Your task to perform on an android device: Show me productivity apps on the Play Store Image 0: 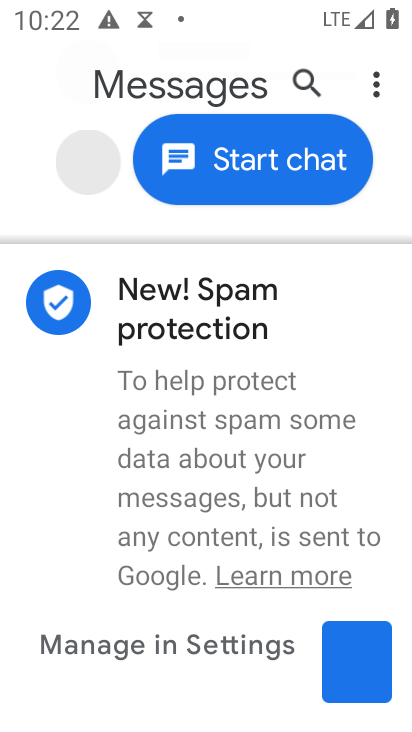
Step 0: press home button
Your task to perform on an android device: Show me productivity apps on the Play Store Image 1: 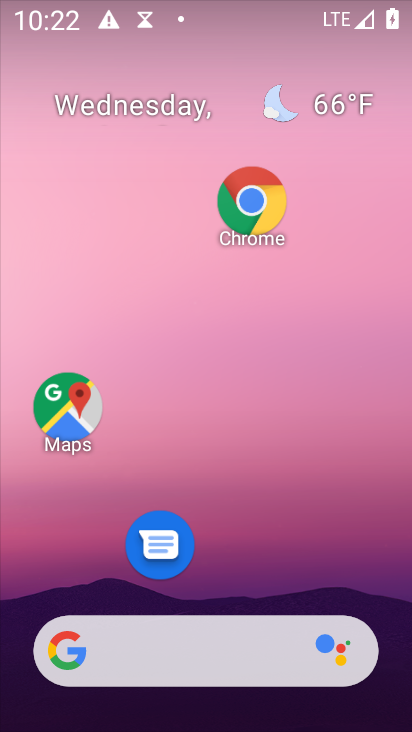
Step 1: drag from (301, 462) to (226, 0)
Your task to perform on an android device: Show me productivity apps on the Play Store Image 2: 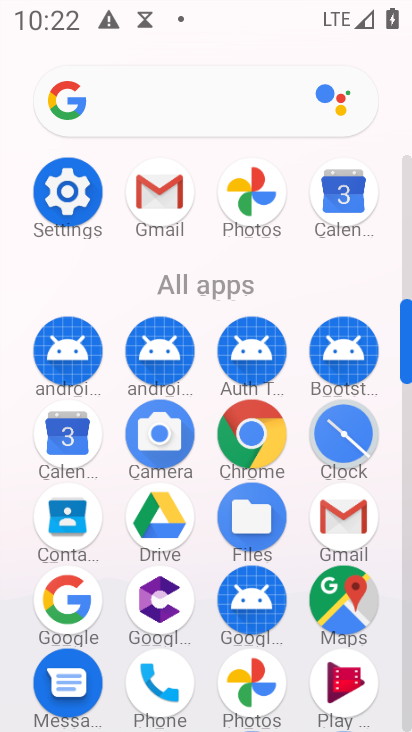
Step 2: drag from (201, 663) to (135, 257)
Your task to perform on an android device: Show me productivity apps on the Play Store Image 3: 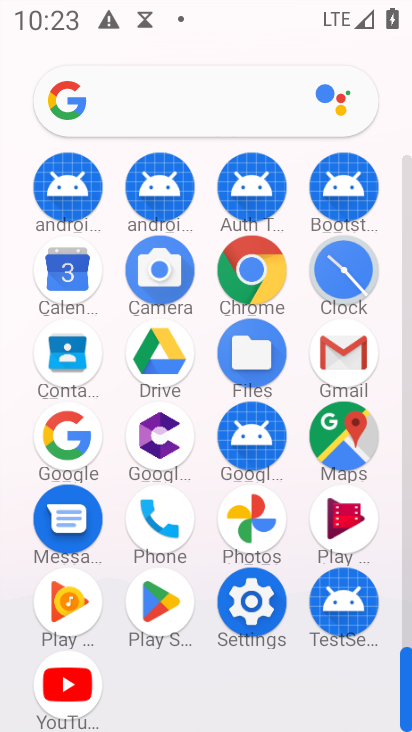
Step 3: click (149, 591)
Your task to perform on an android device: Show me productivity apps on the Play Store Image 4: 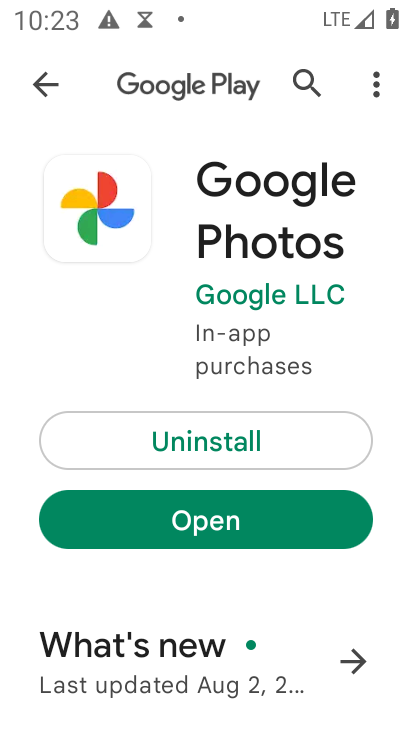
Step 4: click (38, 69)
Your task to perform on an android device: Show me productivity apps on the Play Store Image 5: 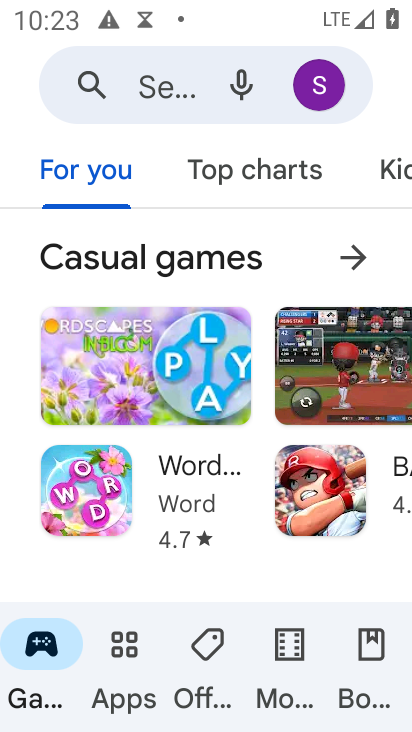
Step 5: click (124, 643)
Your task to perform on an android device: Show me productivity apps on the Play Store Image 6: 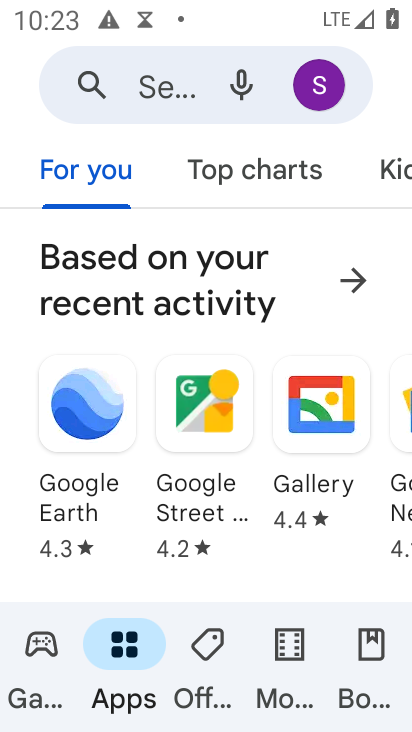
Step 6: drag from (381, 168) to (229, 175)
Your task to perform on an android device: Show me productivity apps on the Play Store Image 7: 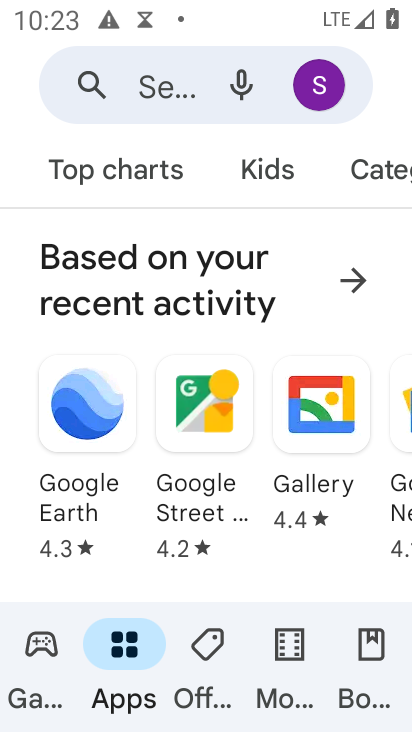
Step 7: click (379, 159)
Your task to perform on an android device: Show me productivity apps on the Play Store Image 8: 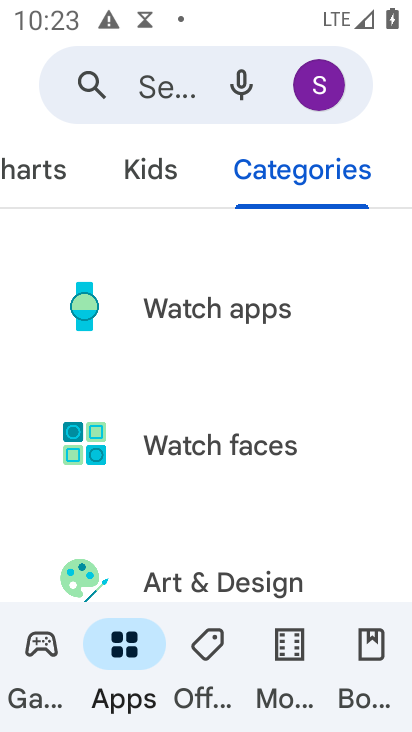
Step 8: drag from (219, 544) to (208, 108)
Your task to perform on an android device: Show me productivity apps on the Play Store Image 9: 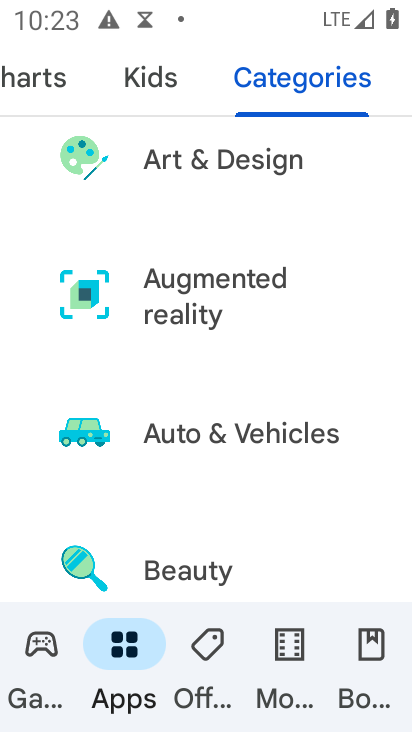
Step 9: drag from (219, 503) to (219, 123)
Your task to perform on an android device: Show me productivity apps on the Play Store Image 10: 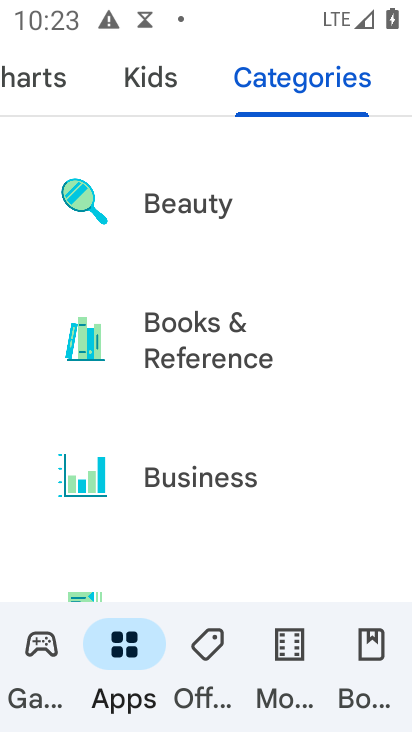
Step 10: drag from (239, 521) to (164, 55)
Your task to perform on an android device: Show me productivity apps on the Play Store Image 11: 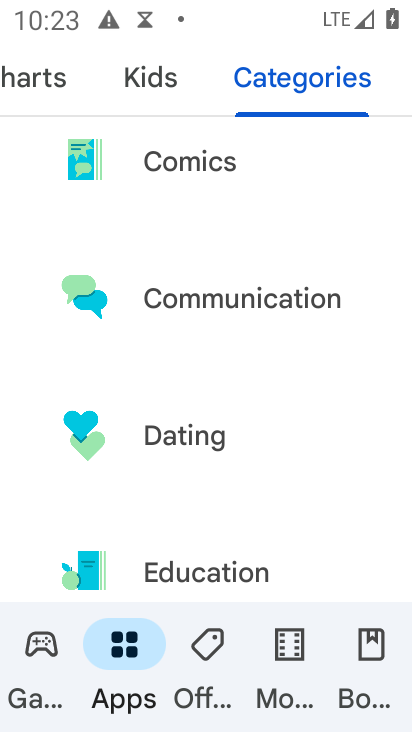
Step 11: drag from (226, 439) to (214, 80)
Your task to perform on an android device: Show me productivity apps on the Play Store Image 12: 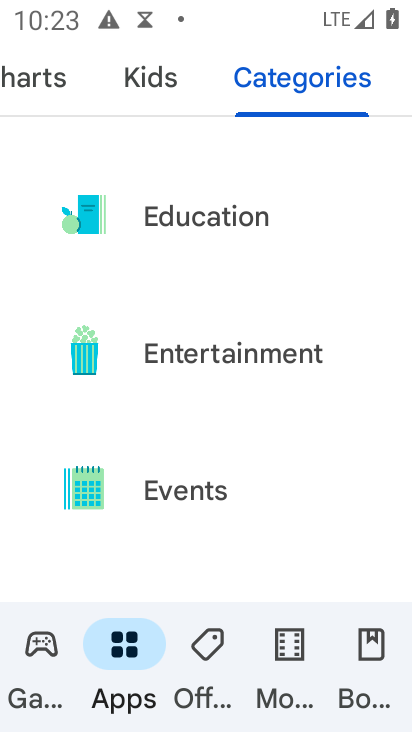
Step 12: drag from (242, 513) to (212, 134)
Your task to perform on an android device: Show me productivity apps on the Play Store Image 13: 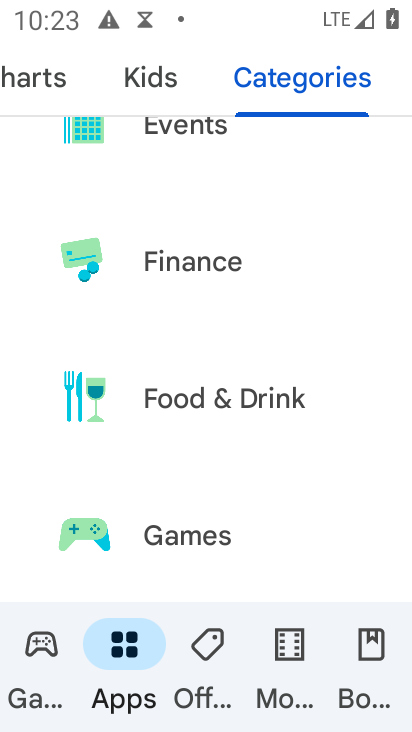
Step 13: drag from (242, 484) to (175, 110)
Your task to perform on an android device: Show me productivity apps on the Play Store Image 14: 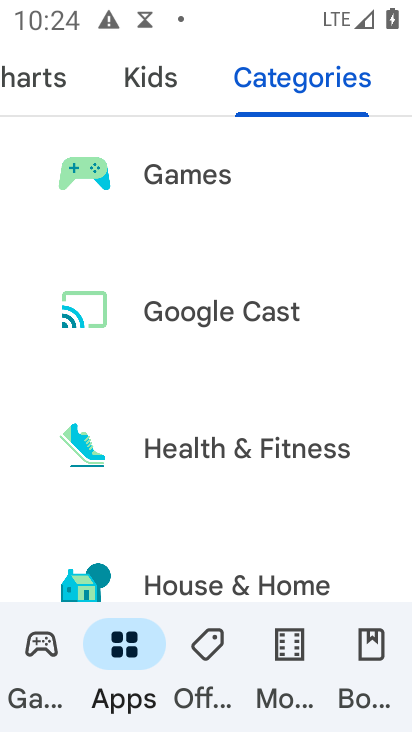
Step 14: drag from (254, 568) to (229, 243)
Your task to perform on an android device: Show me productivity apps on the Play Store Image 15: 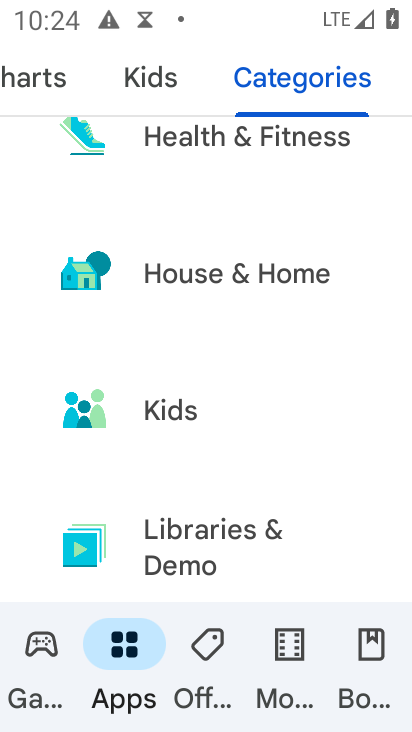
Step 15: drag from (256, 535) to (248, 74)
Your task to perform on an android device: Show me productivity apps on the Play Store Image 16: 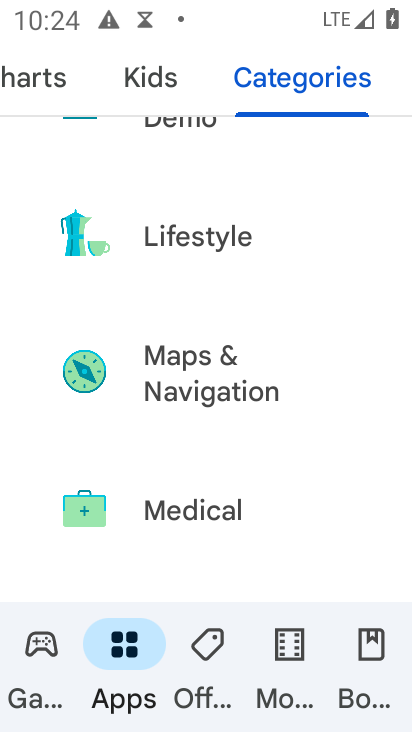
Step 16: drag from (239, 459) to (239, 137)
Your task to perform on an android device: Show me productivity apps on the Play Store Image 17: 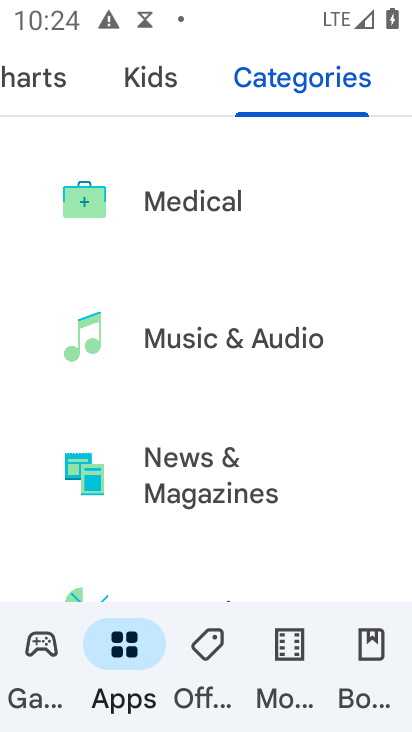
Step 17: drag from (263, 502) to (281, 76)
Your task to perform on an android device: Show me productivity apps on the Play Store Image 18: 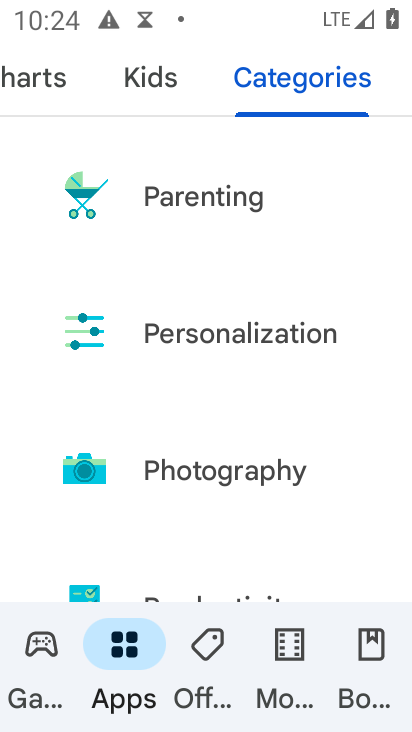
Step 18: drag from (281, 495) to (318, 113)
Your task to perform on an android device: Show me productivity apps on the Play Store Image 19: 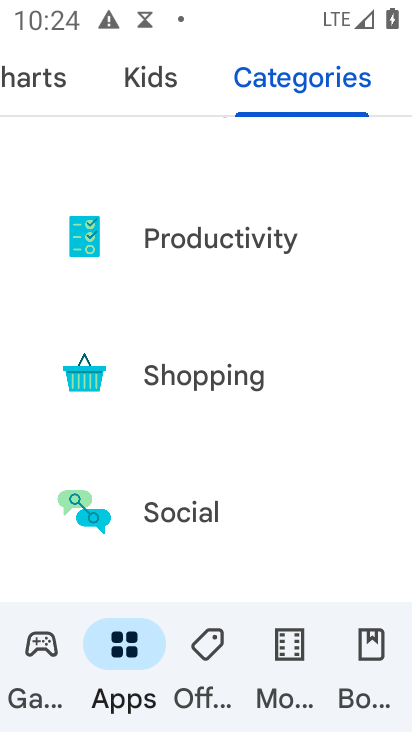
Step 19: click (248, 252)
Your task to perform on an android device: Show me productivity apps on the Play Store Image 20: 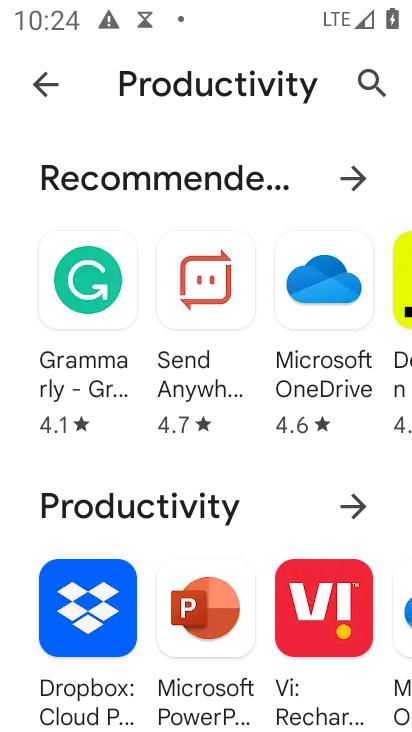
Step 20: task complete